Your task to perform on an android device: stop showing notifications on the lock screen Image 0: 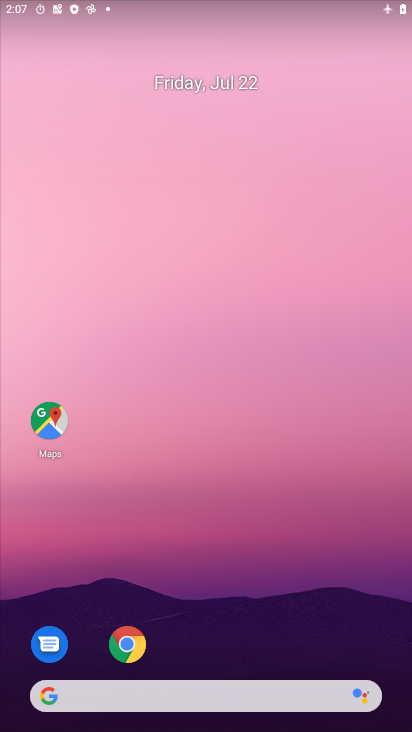
Step 0: drag from (224, 663) to (213, 309)
Your task to perform on an android device: stop showing notifications on the lock screen Image 1: 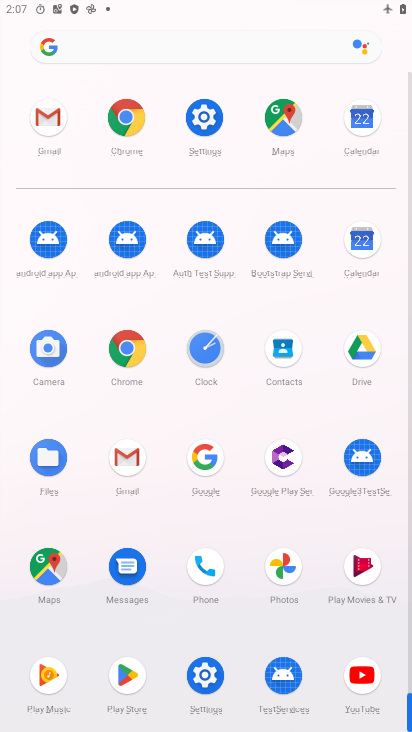
Step 1: click (211, 128)
Your task to perform on an android device: stop showing notifications on the lock screen Image 2: 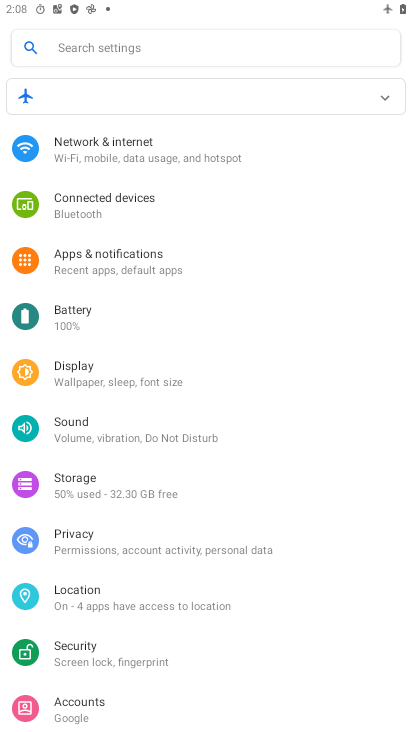
Step 2: click (187, 265)
Your task to perform on an android device: stop showing notifications on the lock screen Image 3: 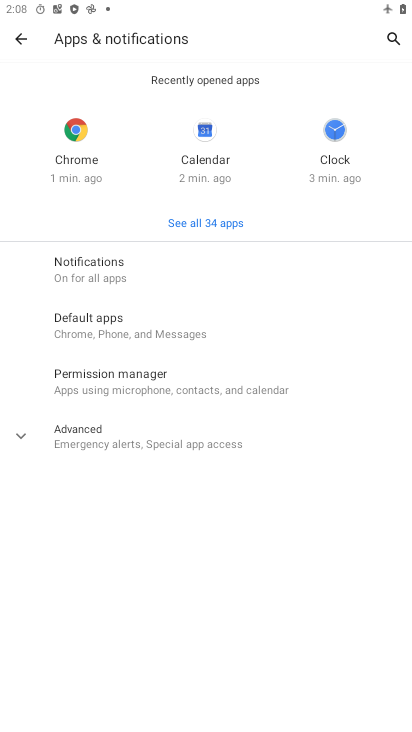
Step 3: click (183, 280)
Your task to perform on an android device: stop showing notifications on the lock screen Image 4: 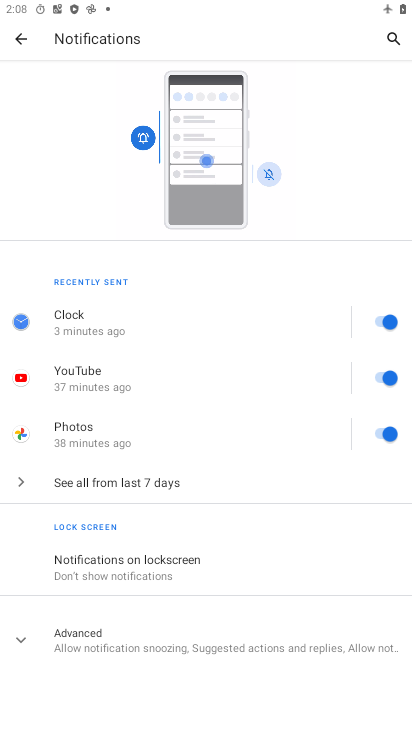
Step 4: click (130, 564)
Your task to perform on an android device: stop showing notifications on the lock screen Image 5: 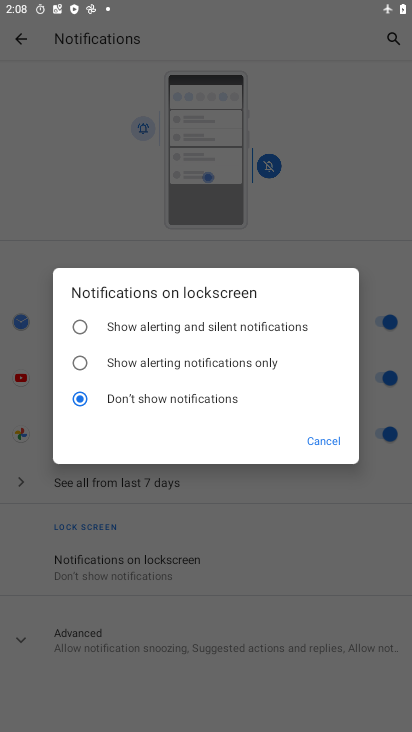
Step 5: task complete